Your task to perform on an android device: Check the weather Image 0: 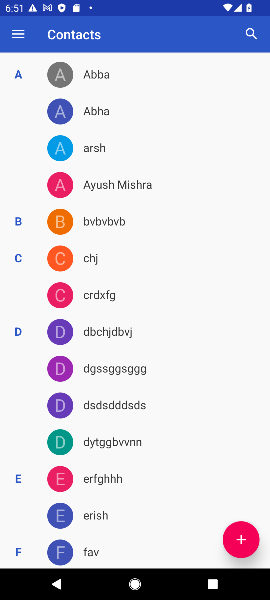
Step 0: press home button
Your task to perform on an android device: Check the weather Image 1: 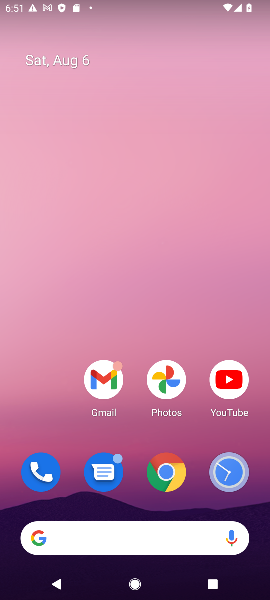
Step 1: click (112, 539)
Your task to perform on an android device: Check the weather Image 2: 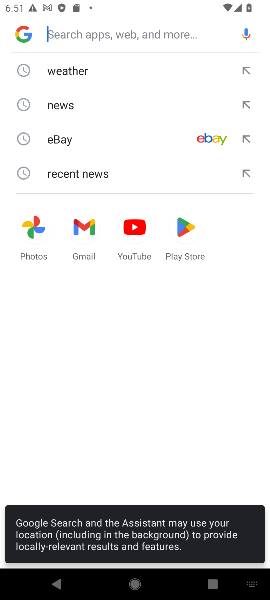
Step 2: click (70, 68)
Your task to perform on an android device: Check the weather Image 3: 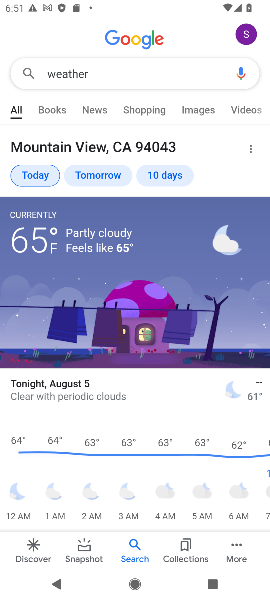
Step 3: task complete